Your task to perform on an android device: check battery use Image 0: 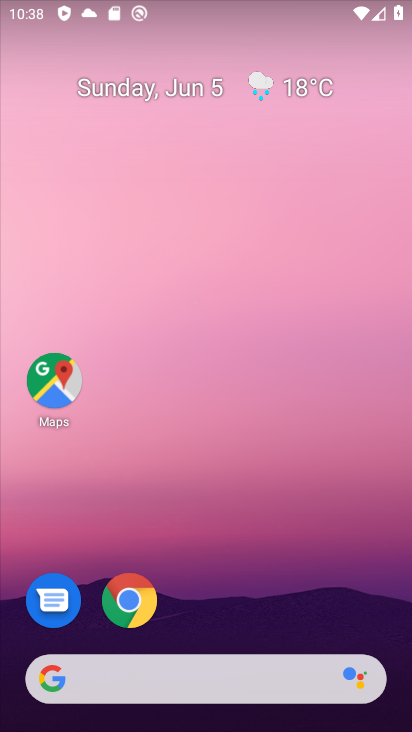
Step 0: drag from (218, 614) to (225, 196)
Your task to perform on an android device: check battery use Image 1: 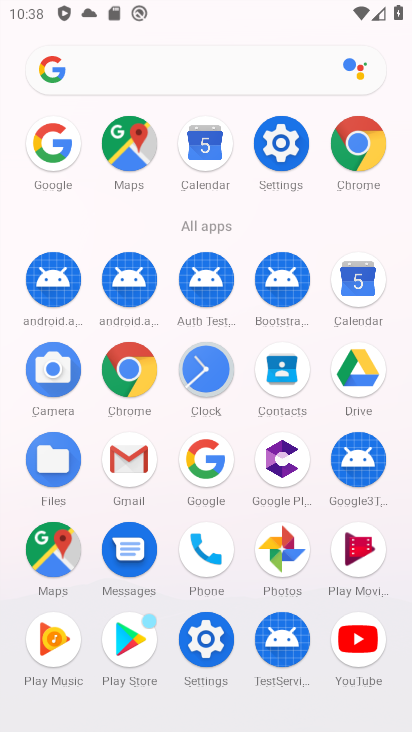
Step 1: click (263, 159)
Your task to perform on an android device: check battery use Image 2: 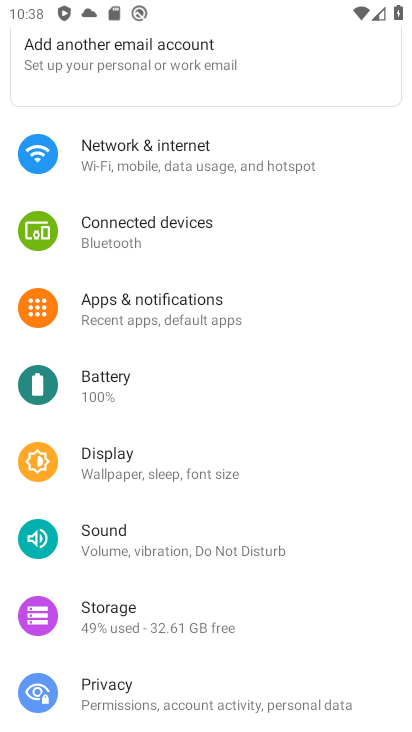
Step 2: click (143, 389)
Your task to perform on an android device: check battery use Image 3: 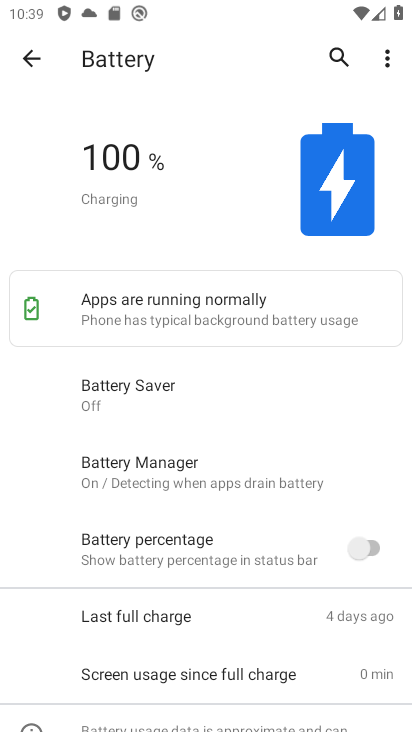
Step 3: click (392, 63)
Your task to perform on an android device: check battery use Image 4: 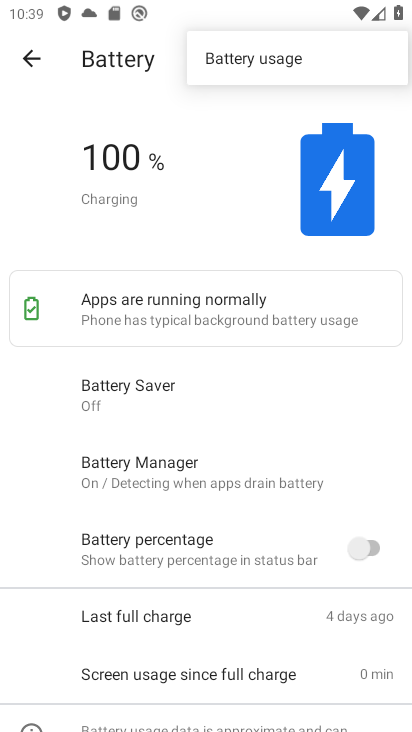
Step 4: click (329, 53)
Your task to perform on an android device: check battery use Image 5: 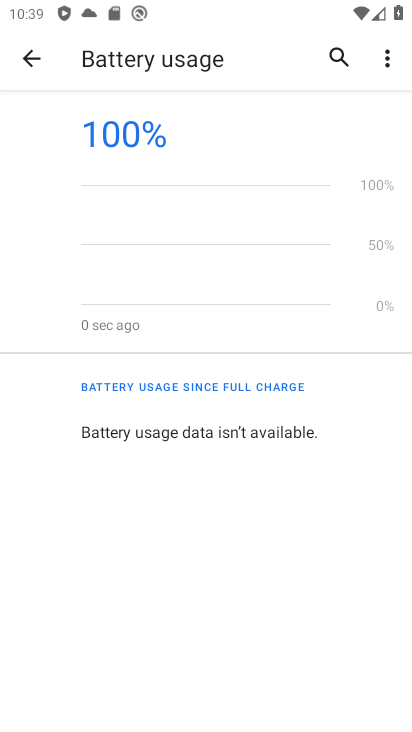
Step 5: task complete